Your task to perform on an android device: Go to network settings Image 0: 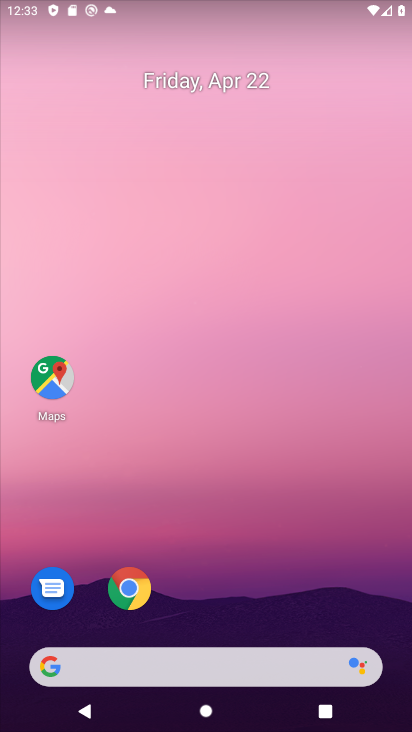
Step 0: drag from (302, 698) to (305, 177)
Your task to perform on an android device: Go to network settings Image 1: 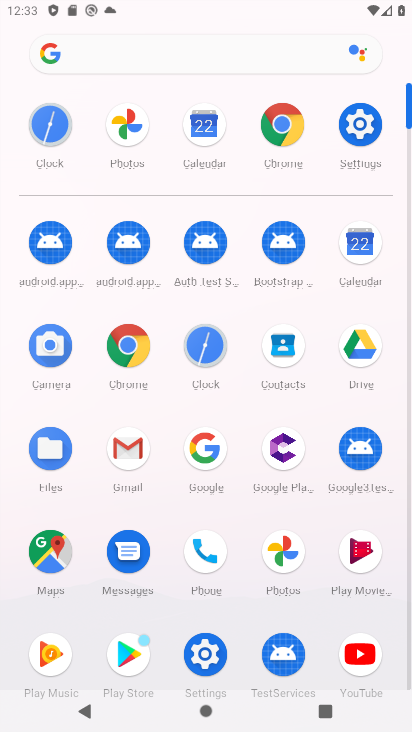
Step 1: drag from (314, 147) to (358, 126)
Your task to perform on an android device: Go to network settings Image 2: 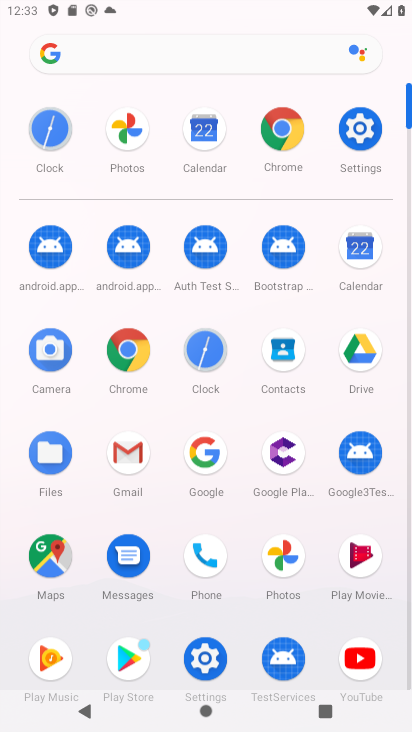
Step 2: click (358, 126)
Your task to perform on an android device: Go to network settings Image 3: 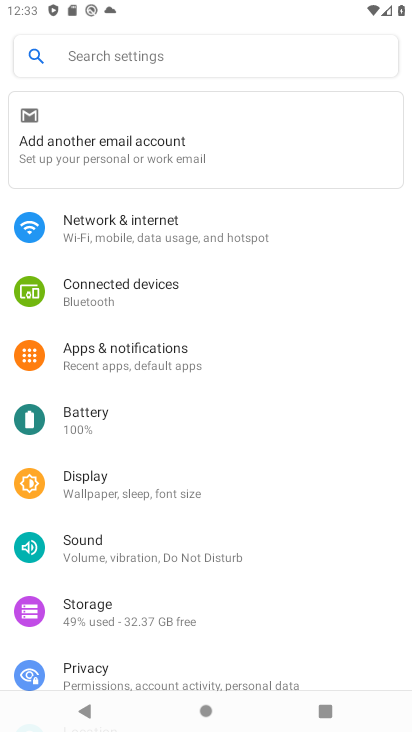
Step 3: click (151, 214)
Your task to perform on an android device: Go to network settings Image 4: 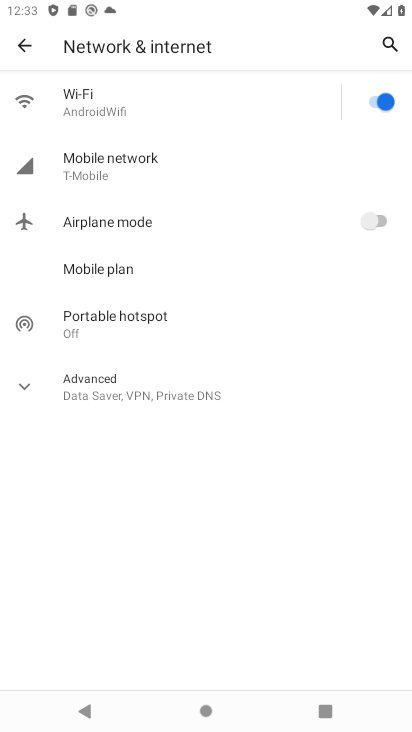
Step 4: click (133, 157)
Your task to perform on an android device: Go to network settings Image 5: 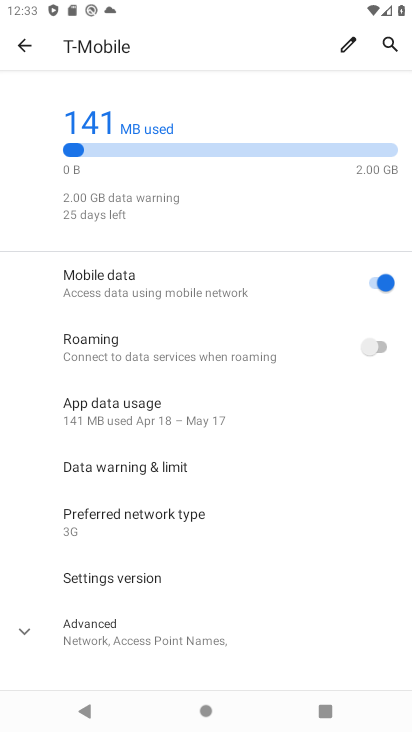
Step 5: task complete